Your task to perform on an android device: Go to battery settings Image 0: 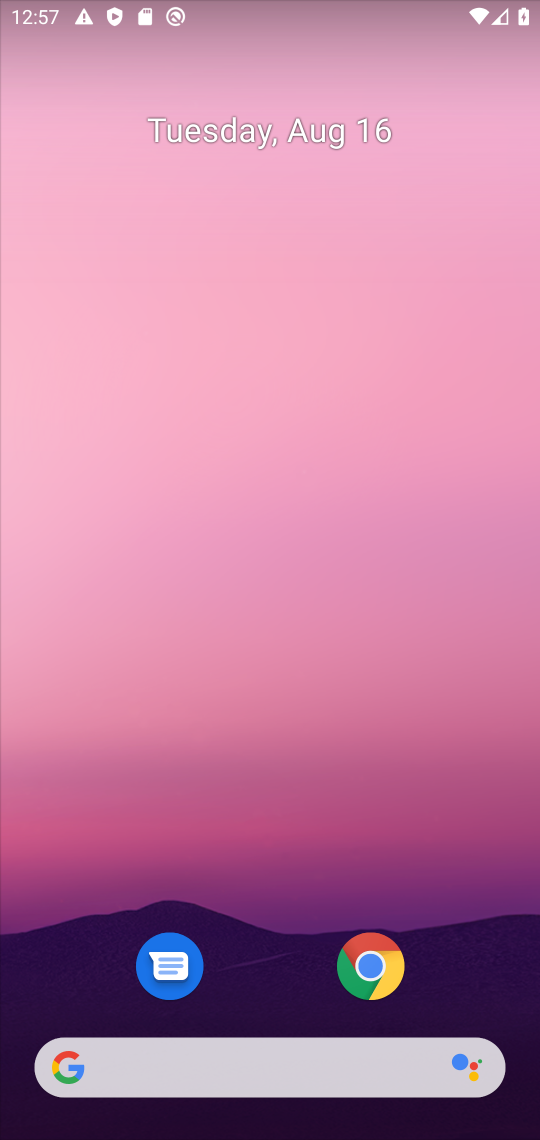
Step 0: drag from (264, 923) to (246, 90)
Your task to perform on an android device: Go to battery settings Image 1: 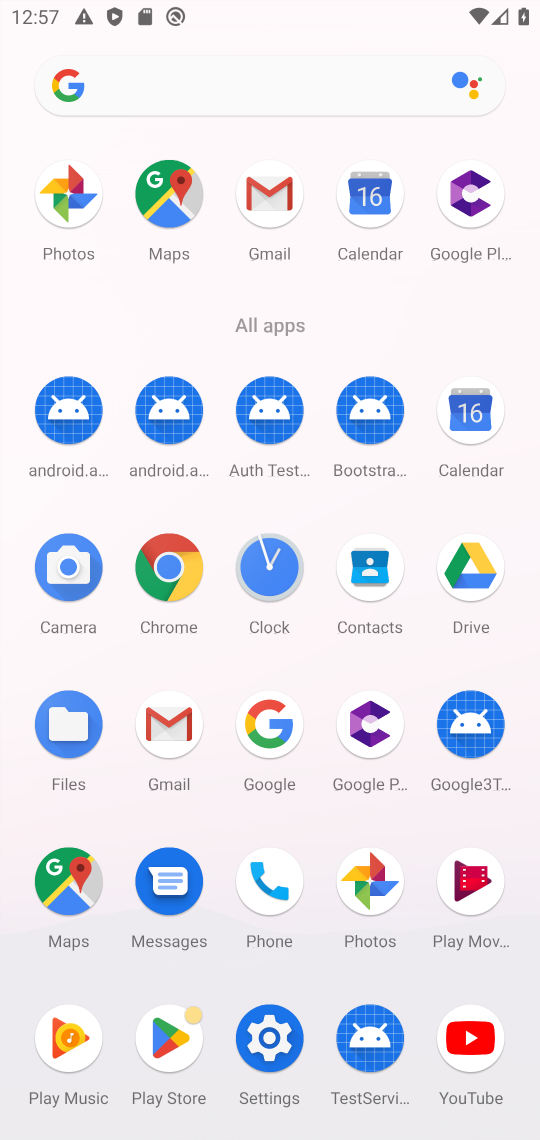
Step 1: click (271, 1037)
Your task to perform on an android device: Go to battery settings Image 2: 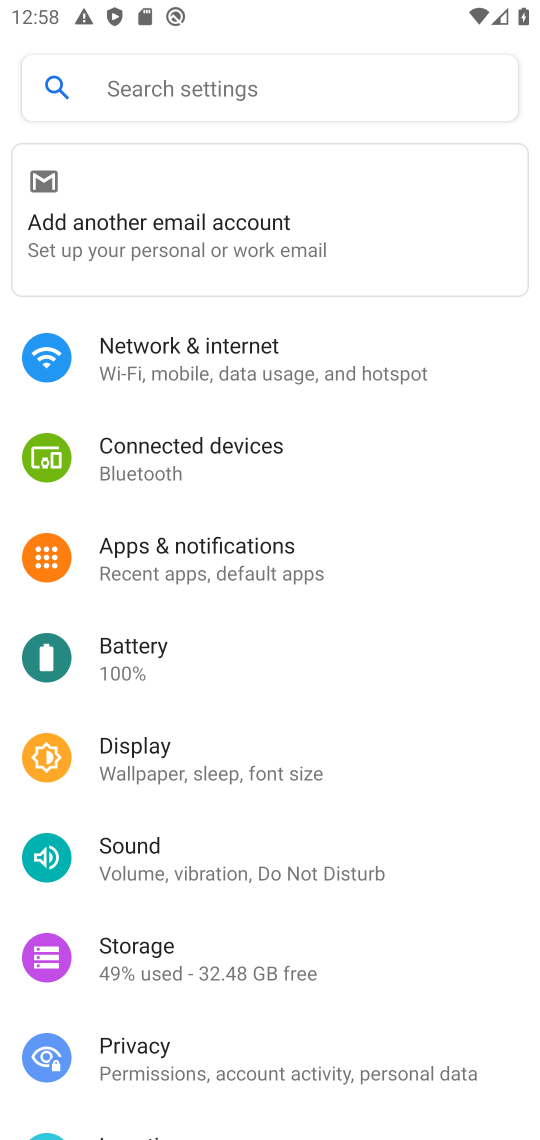
Step 2: click (117, 639)
Your task to perform on an android device: Go to battery settings Image 3: 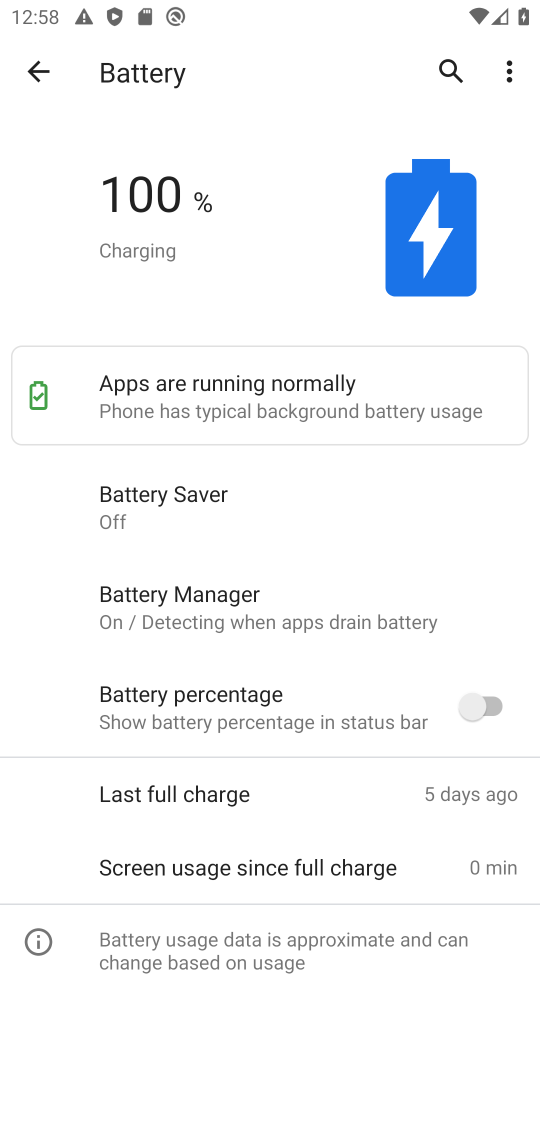
Step 3: task complete